Your task to perform on an android device: turn off smart reply in the gmail app Image 0: 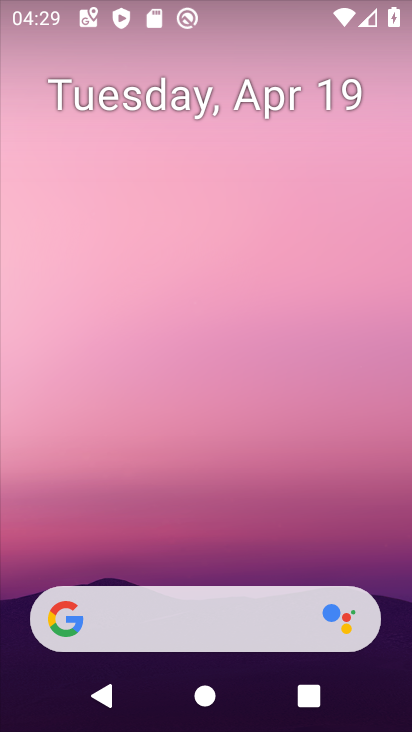
Step 0: drag from (271, 516) to (231, 180)
Your task to perform on an android device: turn off smart reply in the gmail app Image 1: 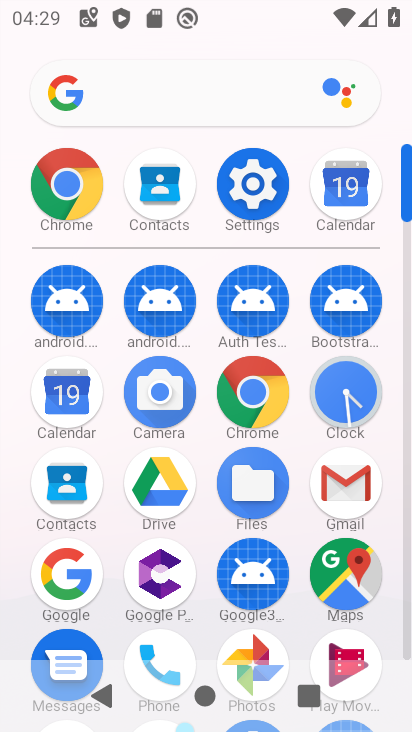
Step 1: click (326, 493)
Your task to perform on an android device: turn off smart reply in the gmail app Image 2: 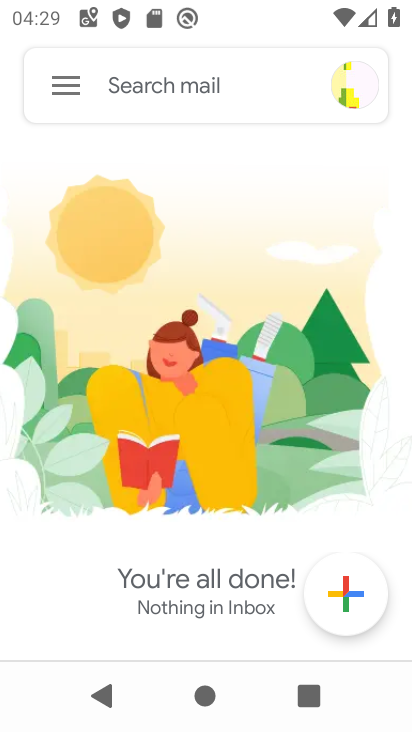
Step 2: click (66, 86)
Your task to perform on an android device: turn off smart reply in the gmail app Image 3: 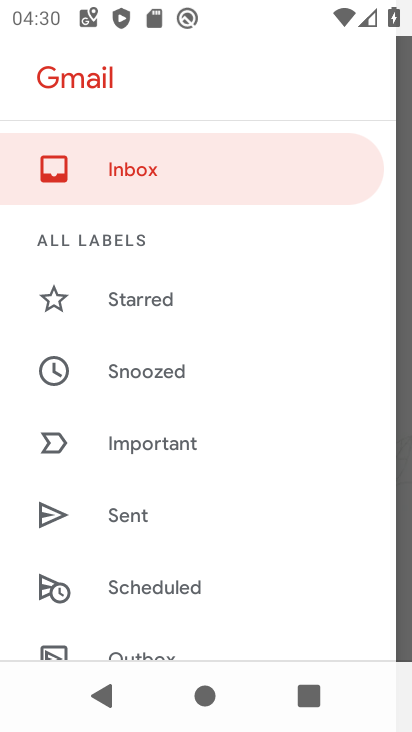
Step 3: drag from (222, 480) to (231, 235)
Your task to perform on an android device: turn off smart reply in the gmail app Image 4: 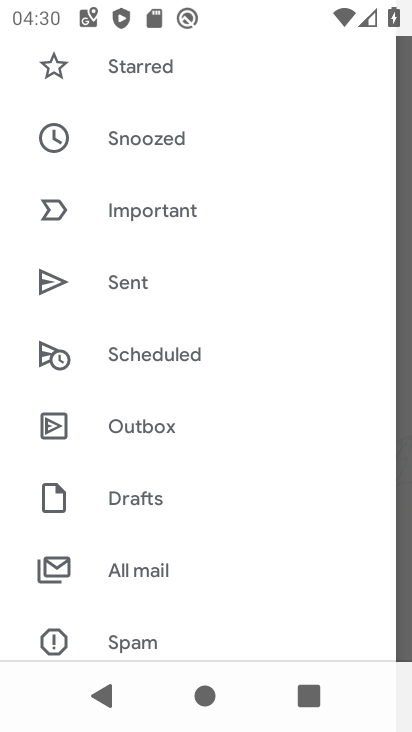
Step 4: drag from (145, 331) to (197, 154)
Your task to perform on an android device: turn off smart reply in the gmail app Image 5: 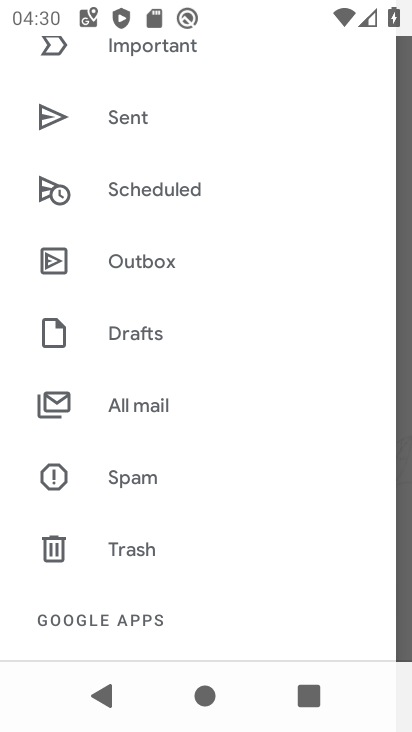
Step 5: drag from (128, 373) to (166, 173)
Your task to perform on an android device: turn off smart reply in the gmail app Image 6: 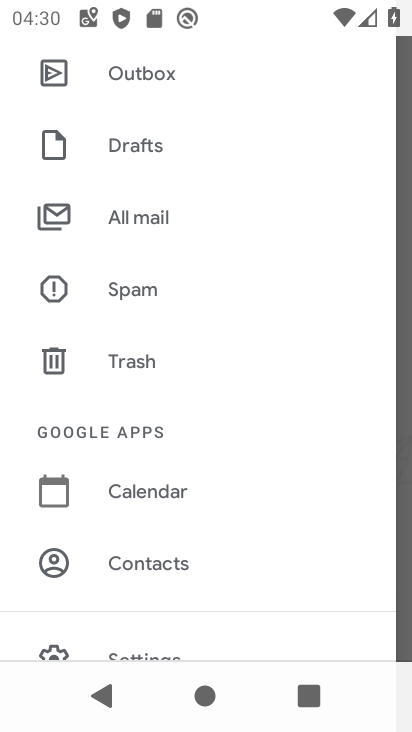
Step 6: drag from (143, 400) to (178, 213)
Your task to perform on an android device: turn off smart reply in the gmail app Image 7: 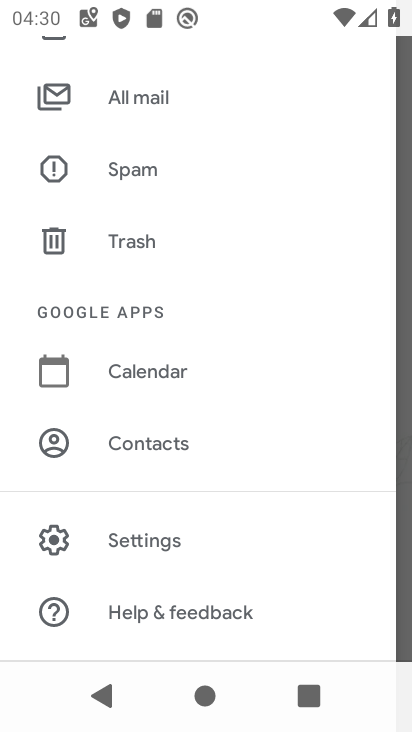
Step 7: click (122, 540)
Your task to perform on an android device: turn off smart reply in the gmail app Image 8: 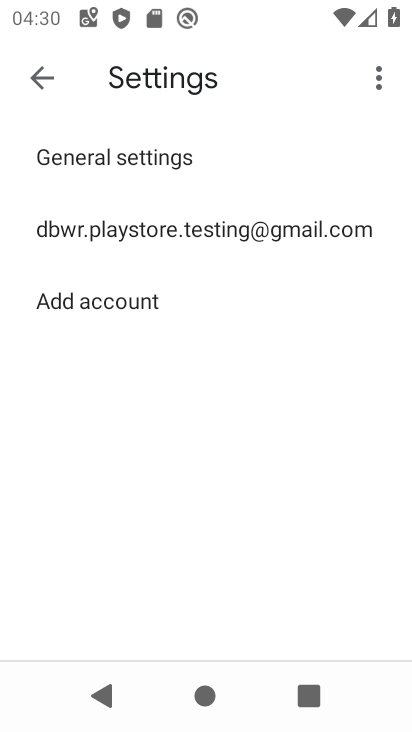
Step 8: click (198, 236)
Your task to perform on an android device: turn off smart reply in the gmail app Image 9: 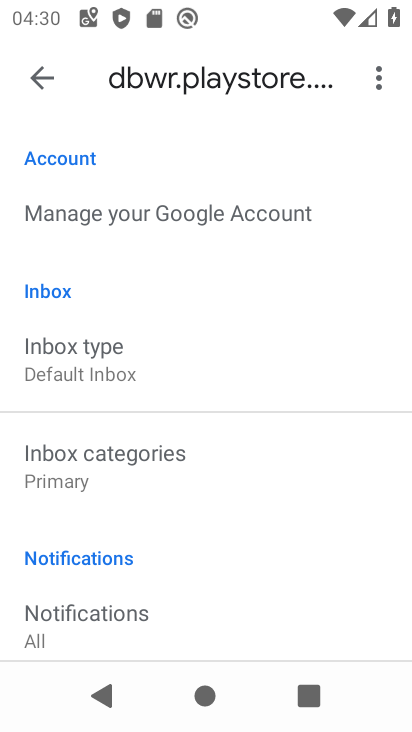
Step 9: task complete